Your task to perform on an android device: Open the Play Movies app and select the watchlist tab. Image 0: 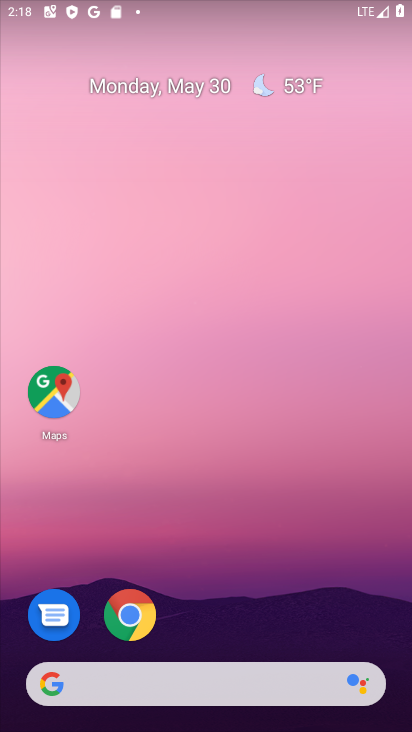
Step 0: drag from (325, 645) to (276, 106)
Your task to perform on an android device: Open the Play Movies app and select the watchlist tab. Image 1: 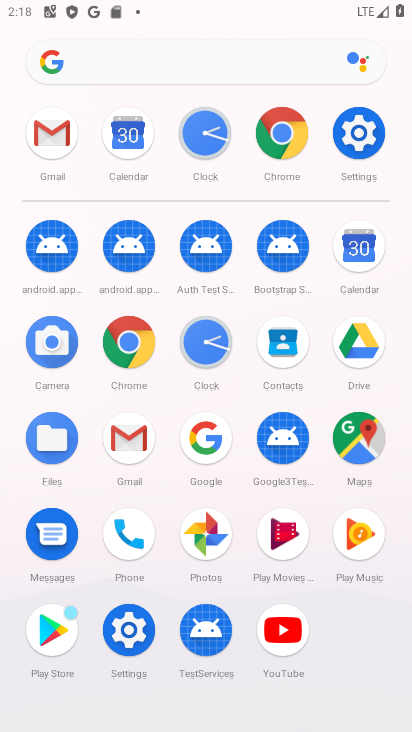
Step 1: click (284, 537)
Your task to perform on an android device: Open the Play Movies app and select the watchlist tab. Image 2: 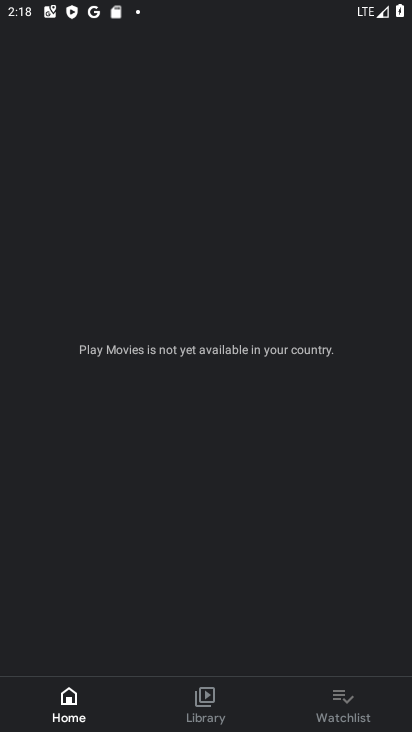
Step 2: click (346, 693)
Your task to perform on an android device: Open the Play Movies app and select the watchlist tab. Image 3: 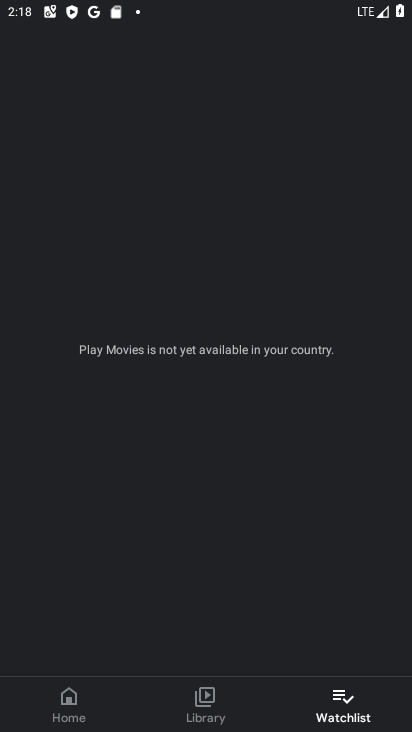
Step 3: task complete